Your task to perform on an android device: check the backup settings in the google photos Image 0: 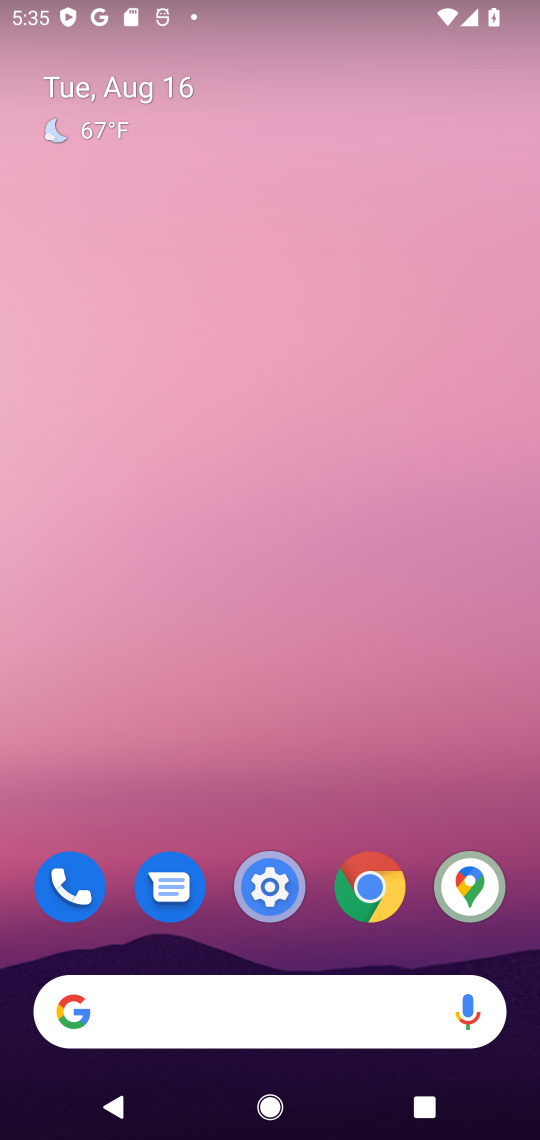
Step 0: drag from (317, 789) to (357, 7)
Your task to perform on an android device: check the backup settings in the google photos Image 1: 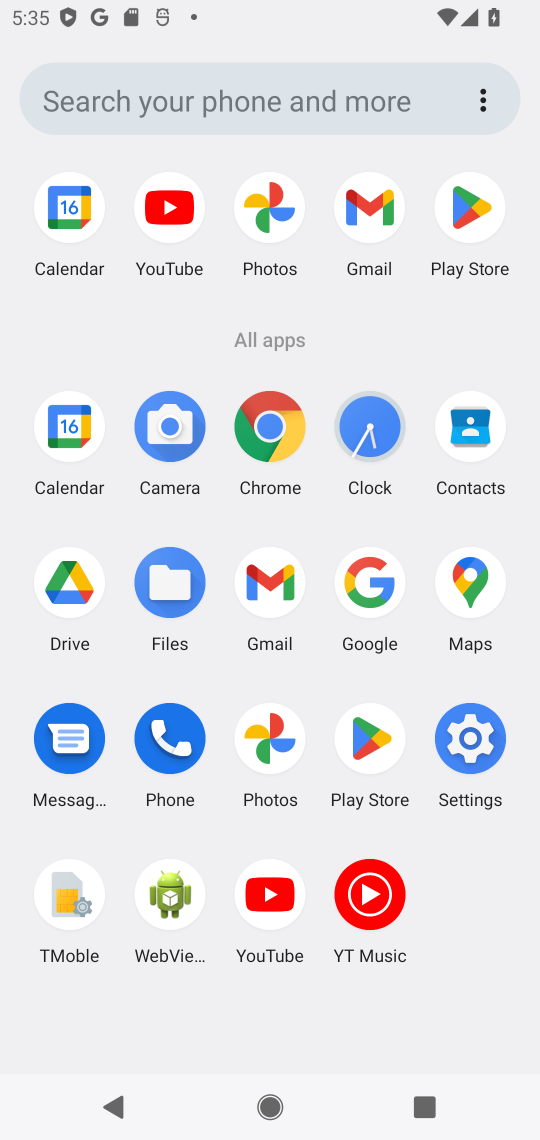
Step 1: click (261, 735)
Your task to perform on an android device: check the backup settings in the google photos Image 2: 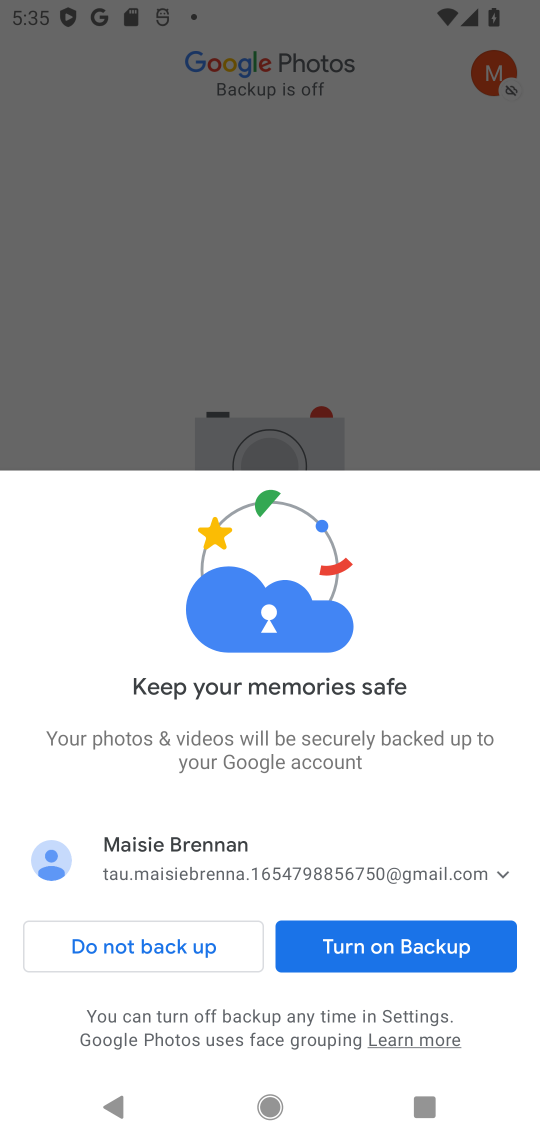
Step 2: click (366, 960)
Your task to perform on an android device: check the backup settings in the google photos Image 3: 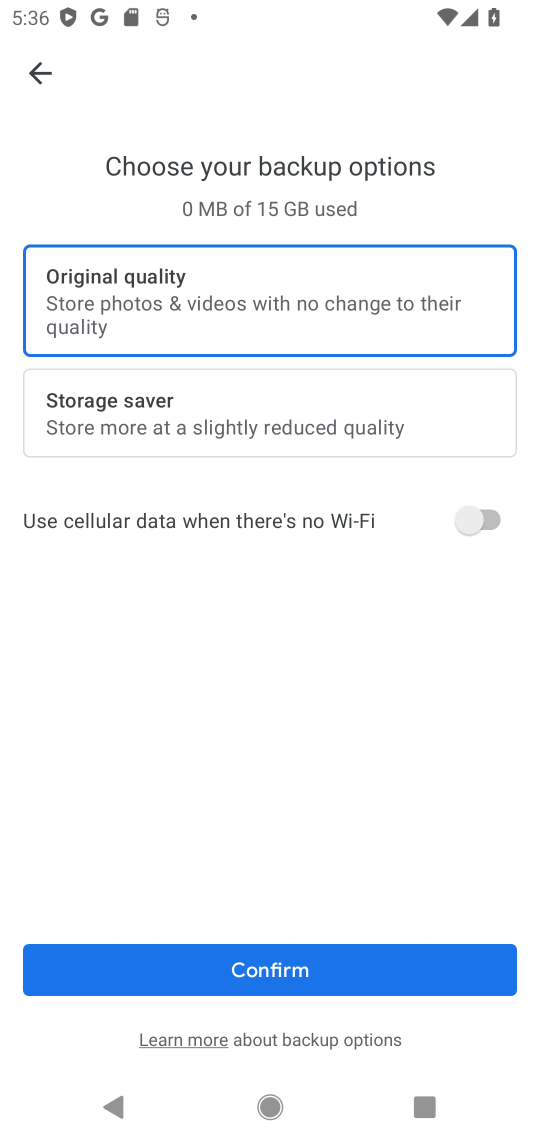
Step 3: click (185, 967)
Your task to perform on an android device: check the backup settings in the google photos Image 4: 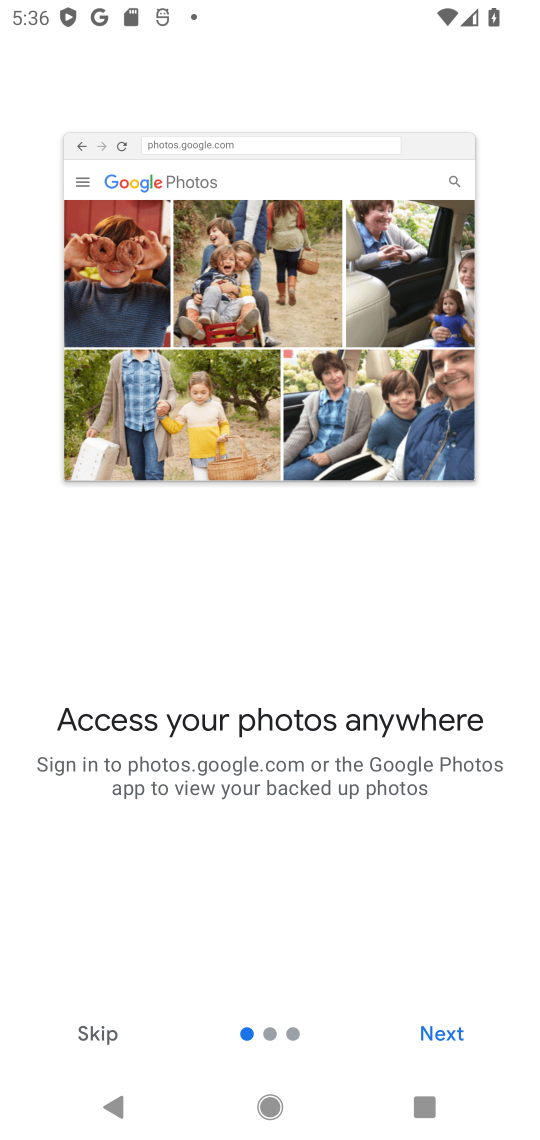
Step 4: click (434, 1026)
Your task to perform on an android device: check the backup settings in the google photos Image 5: 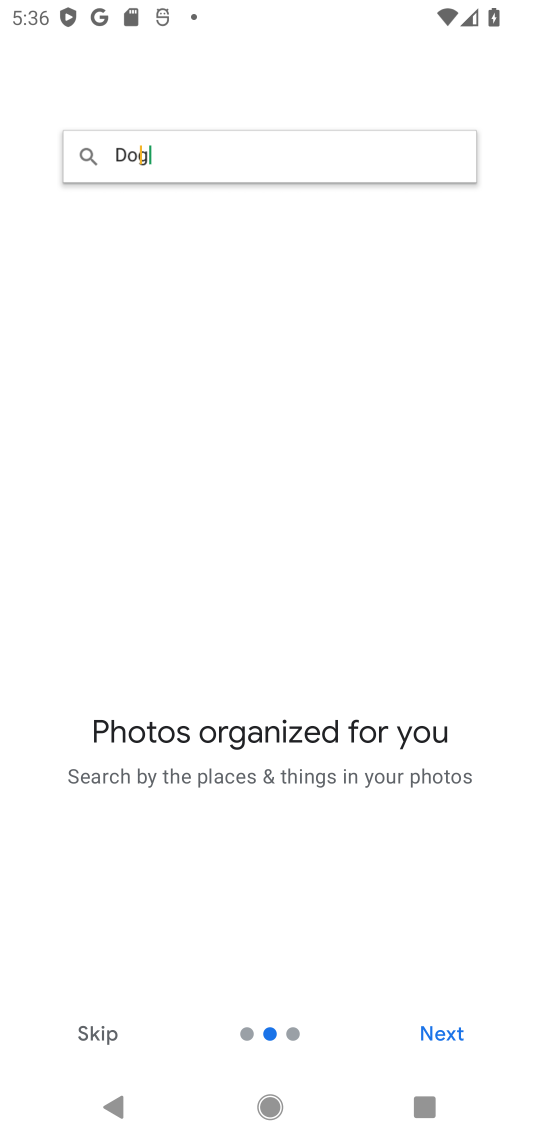
Step 5: click (433, 1022)
Your task to perform on an android device: check the backup settings in the google photos Image 6: 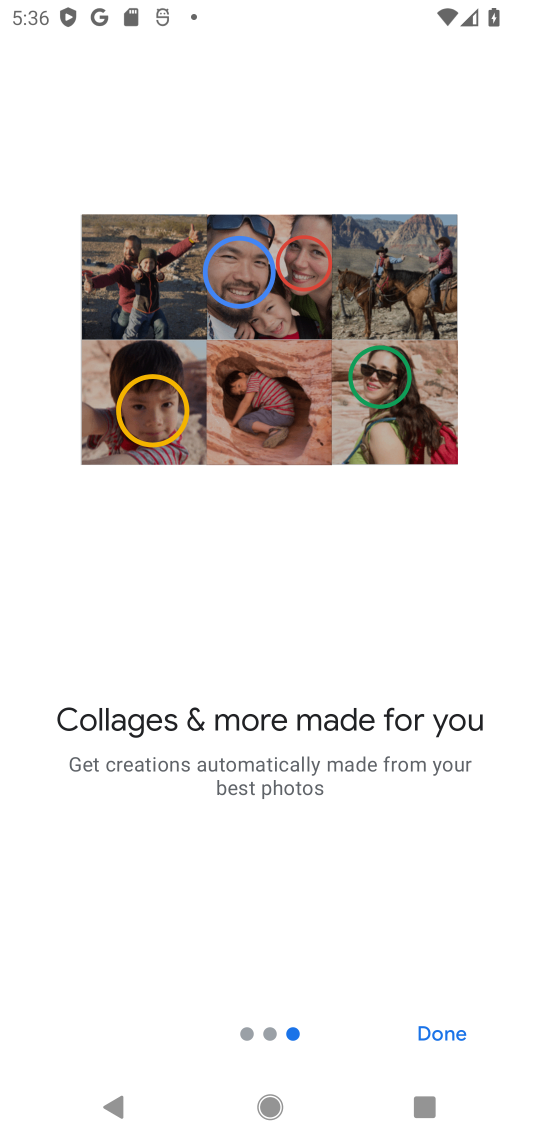
Step 6: click (433, 1022)
Your task to perform on an android device: check the backup settings in the google photos Image 7: 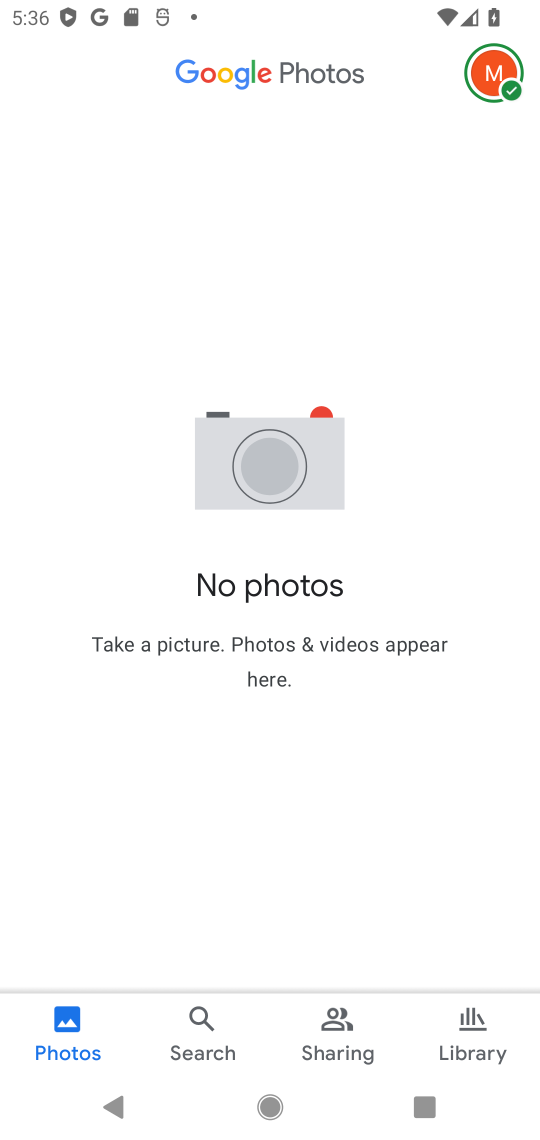
Step 7: click (488, 78)
Your task to perform on an android device: check the backup settings in the google photos Image 8: 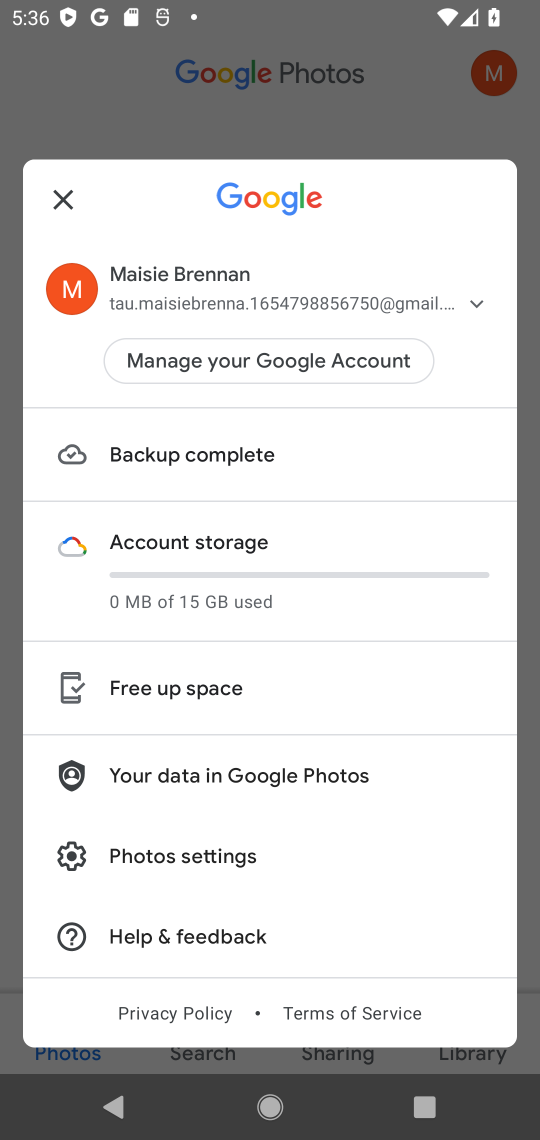
Step 8: click (207, 849)
Your task to perform on an android device: check the backup settings in the google photos Image 9: 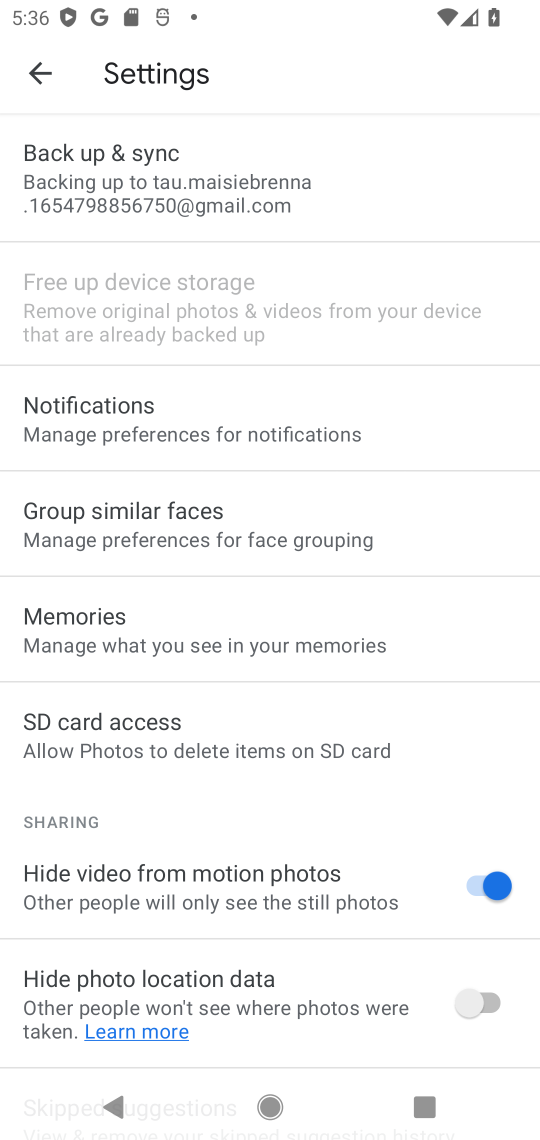
Step 9: click (199, 182)
Your task to perform on an android device: check the backup settings in the google photos Image 10: 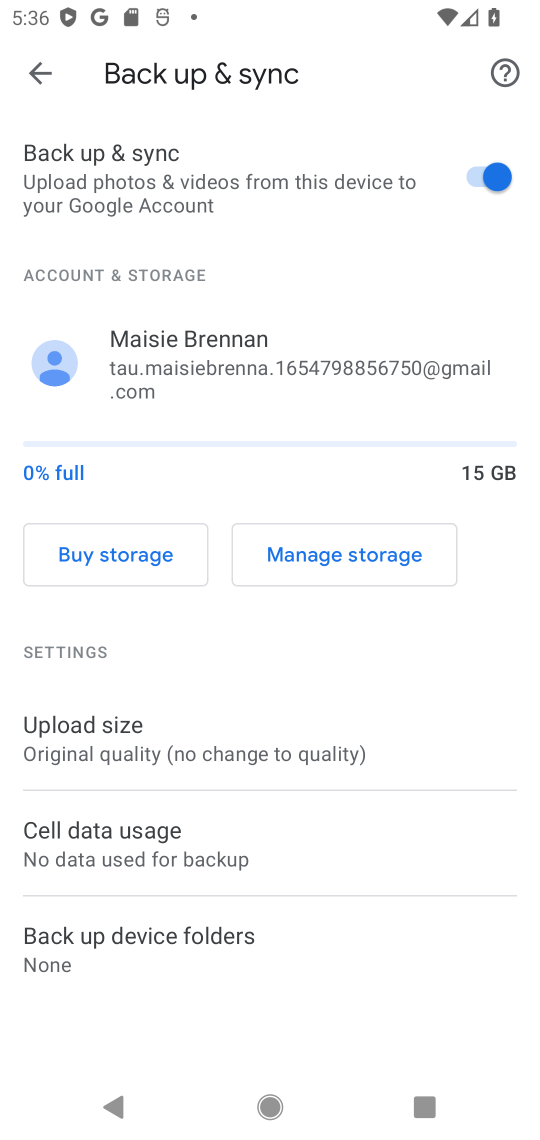
Step 10: task complete